Your task to perform on an android device: delete location history Image 0: 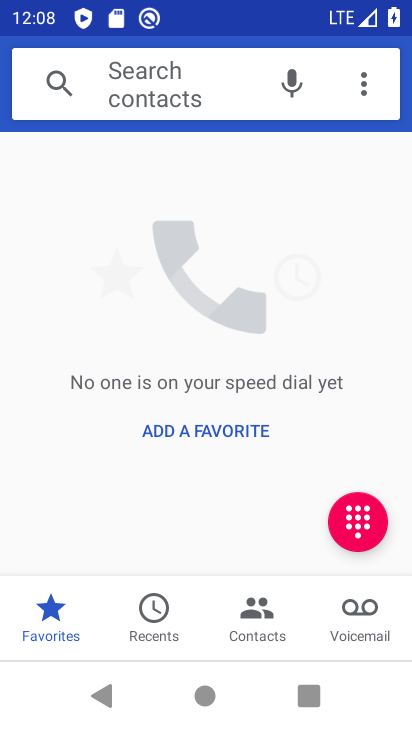
Step 0: press home button
Your task to perform on an android device: delete location history Image 1: 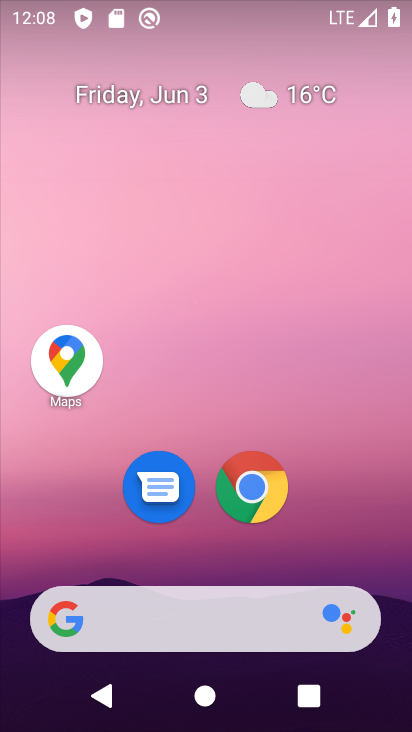
Step 1: click (82, 358)
Your task to perform on an android device: delete location history Image 2: 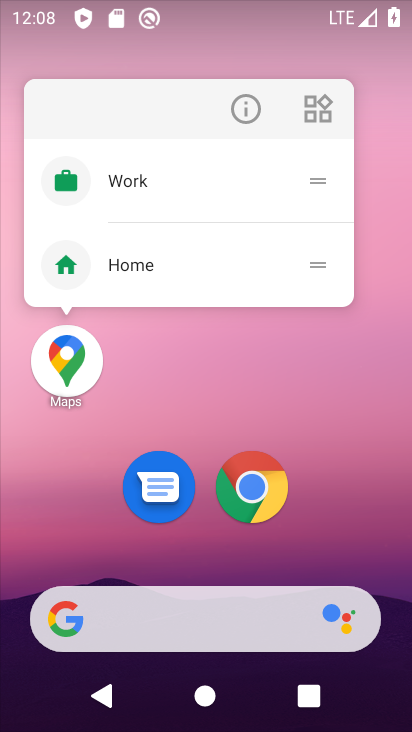
Step 2: click (92, 351)
Your task to perform on an android device: delete location history Image 3: 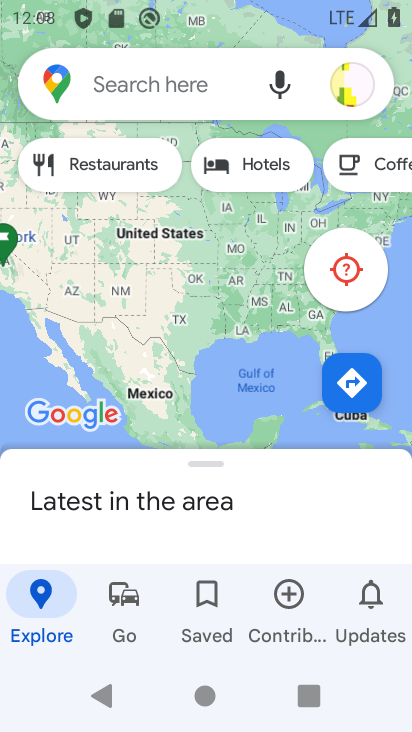
Step 3: click (356, 79)
Your task to perform on an android device: delete location history Image 4: 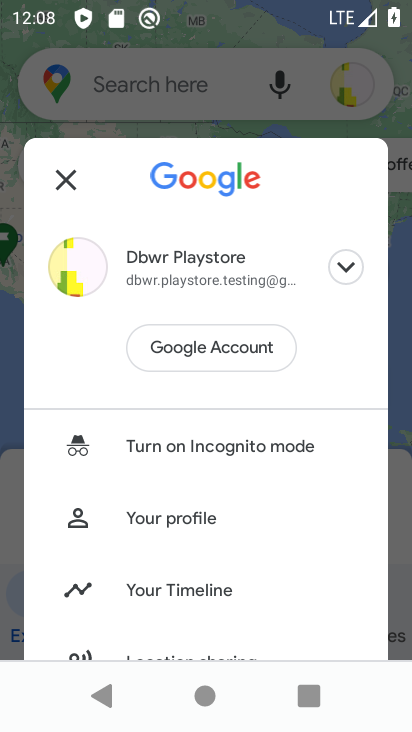
Step 4: click (181, 591)
Your task to perform on an android device: delete location history Image 5: 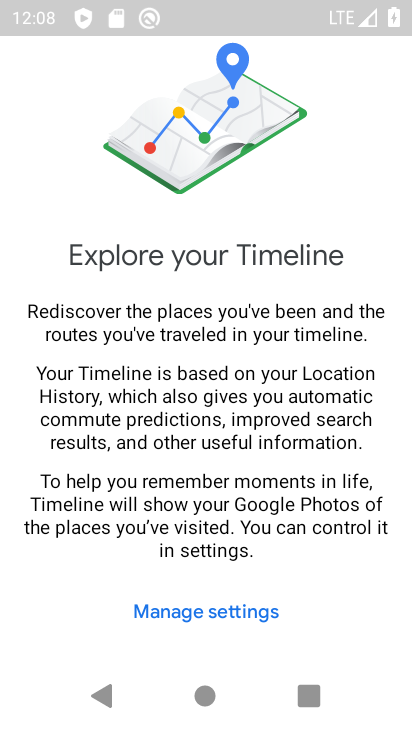
Step 5: click (209, 611)
Your task to perform on an android device: delete location history Image 6: 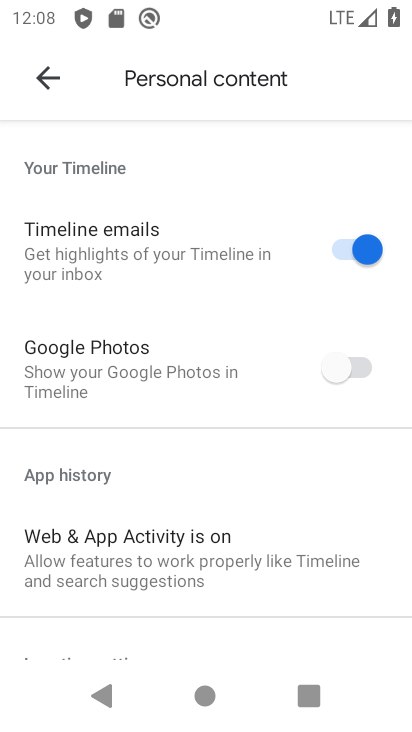
Step 6: drag from (238, 541) to (222, 122)
Your task to perform on an android device: delete location history Image 7: 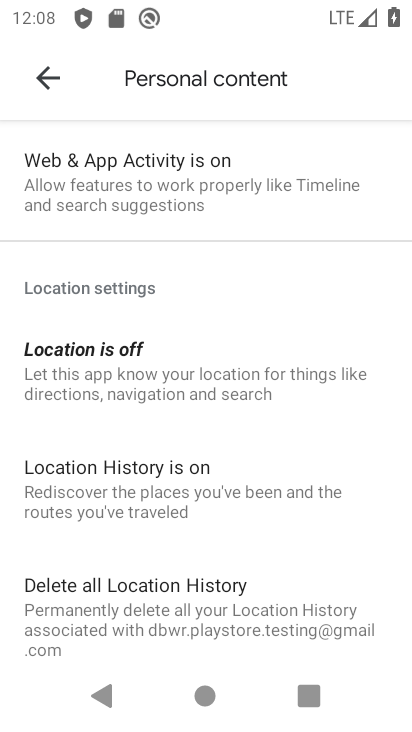
Step 7: click (212, 618)
Your task to perform on an android device: delete location history Image 8: 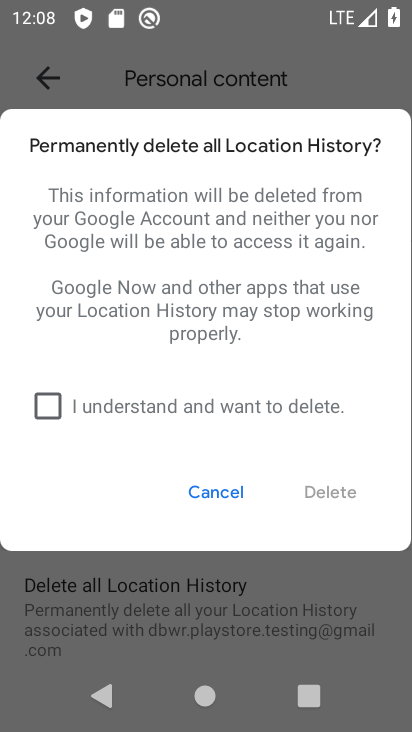
Step 8: click (57, 410)
Your task to perform on an android device: delete location history Image 9: 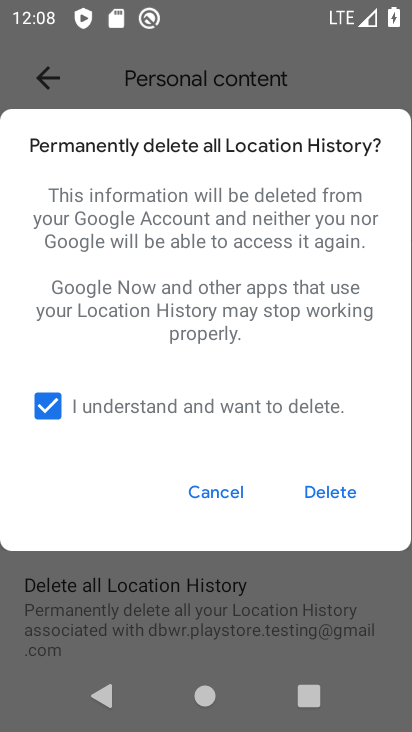
Step 9: click (322, 494)
Your task to perform on an android device: delete location history Image 10: 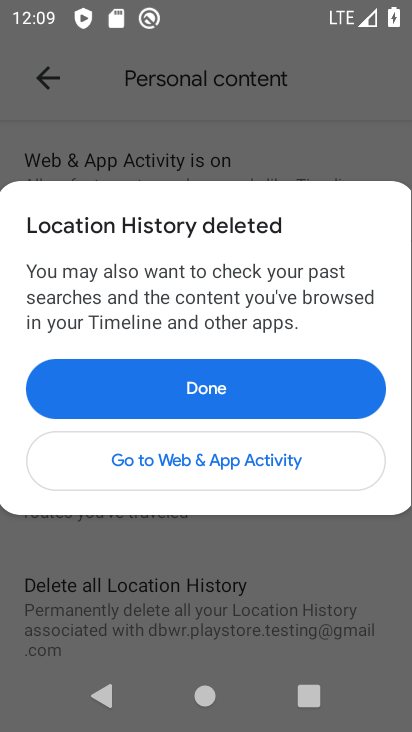
Step 10: click (215, 394)
Your task to perform on an android device: delete location history Image 11: 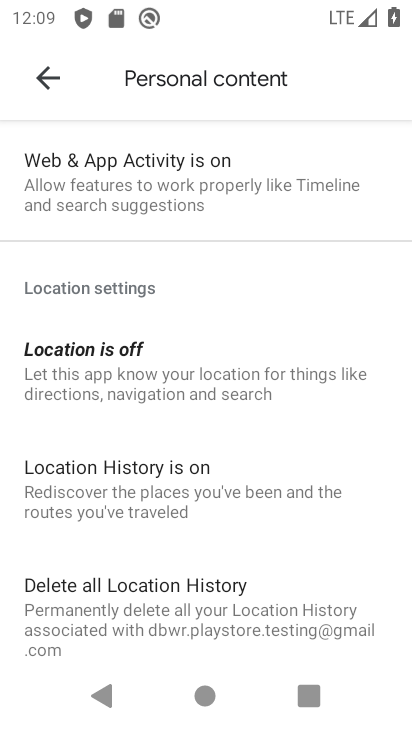
Step 11: task complete